Your task to perform on an android device: toggle translation in the chrome app Image 0: 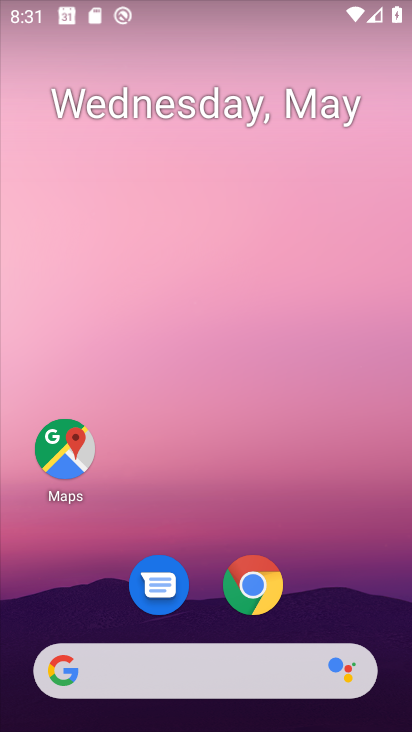
Step 0: click (260, 585)
Your task to perform on an android device: toggle translation in the chrome app Image 1: 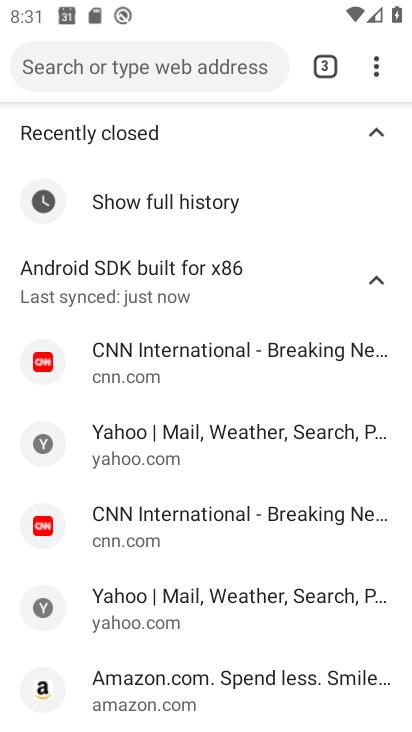
Step 1: click (373, 67)
Your task to perform on an android device: toggle translation in the chrome app Image 2: 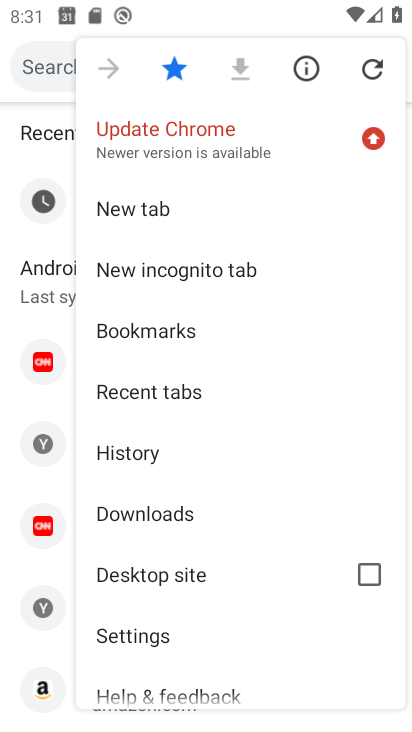
Step 2: click (213, 640)
Your task to perform on an android device: toggle translation in the chrome app Image 3: 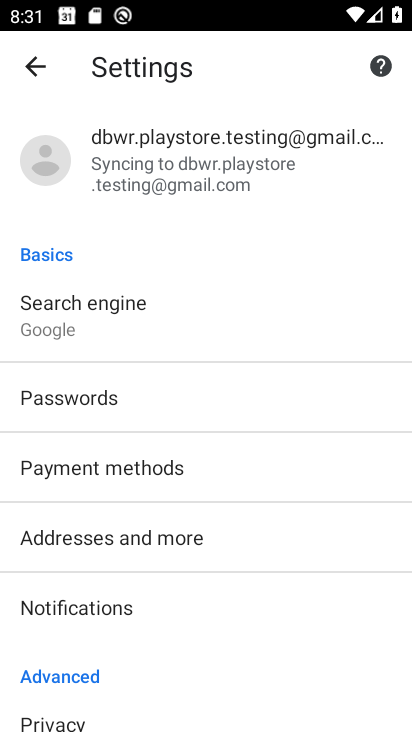
Step 3: drag from (213, 638) to (200, 193)
Your task to perform on an android device: toggle translation in the chrome app Image 4: 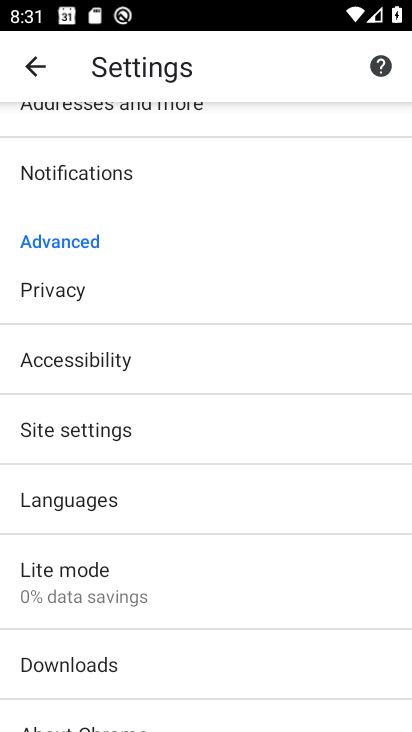
Step 4: click (206, 512)
Your task to perform on an android device: toggle translation in the chrome app Image 5: 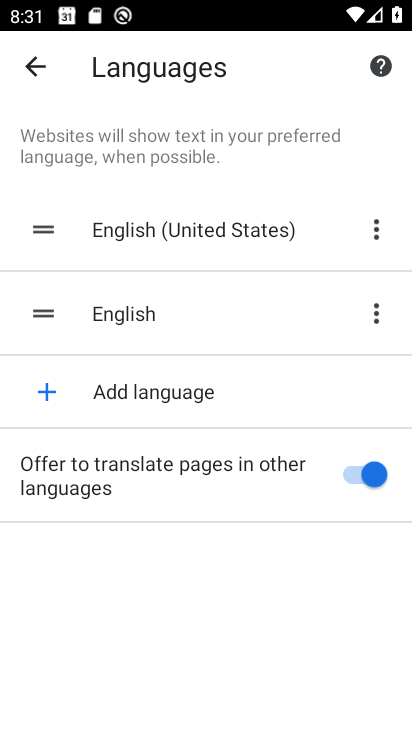
Step 5: click (339, 472)
Your task to perform on an android device: toggle translation in the chrome app Image 6: 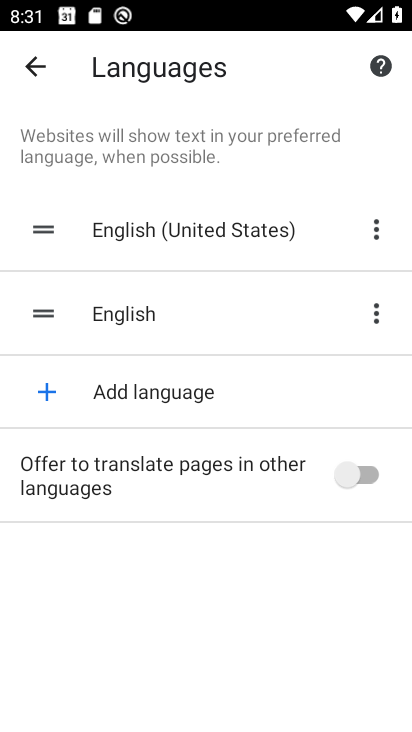
Step 6: task complete